Your task to perform on an android device: Open Android settings Image 0: 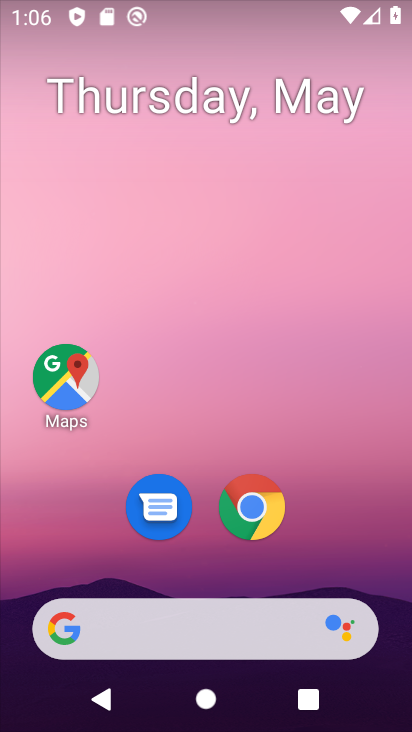
Step 0: drag from (312, 540) to (308, 187)
Your task to perform on an android device: Open Android settings Image 1: 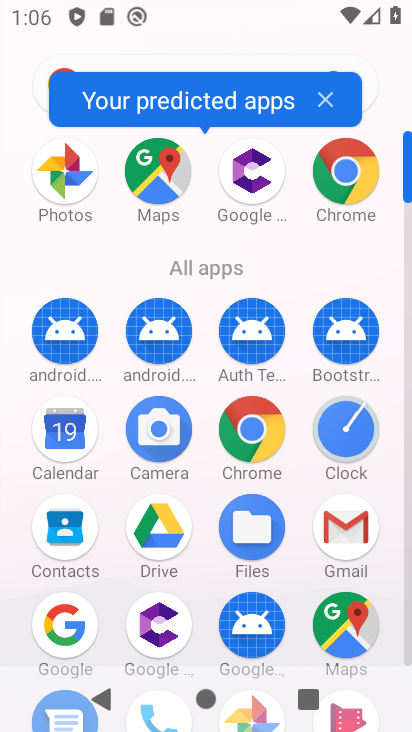
Step 1: drag from (142, 547) to (210, 185)
Your task to perform on an android device: Open Android settings Image 2: 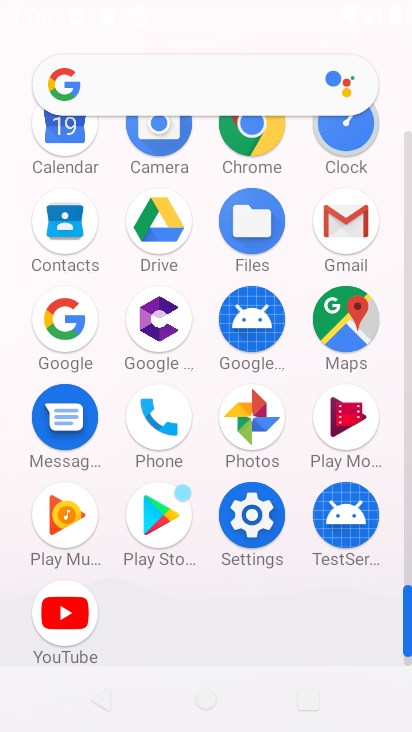
Step 2: click (244, 533)
Your task to perform on an android device: Open Android settings Image 3: 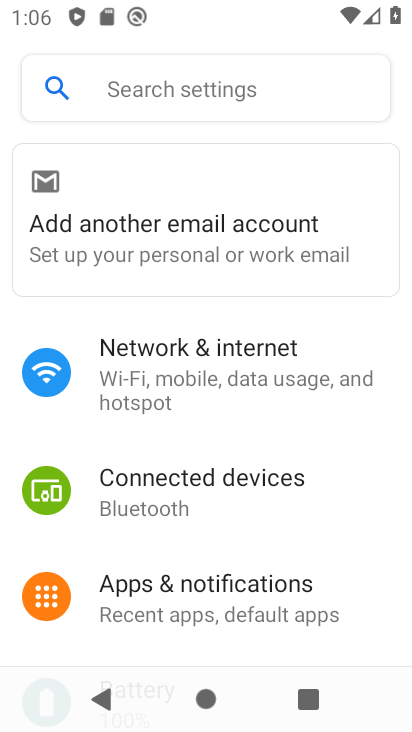
Step 3: task complete